Your task to perform on an android device: When is my next appointment? Image 0: 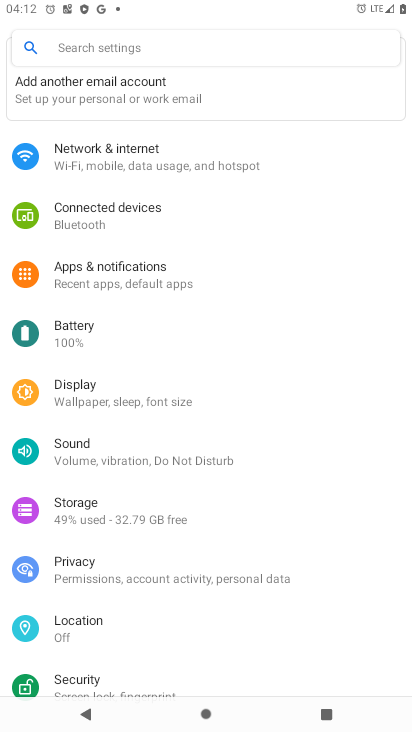
Step 0: press home button
Your task to perform on an android device: When is my next appointment? Image 1: 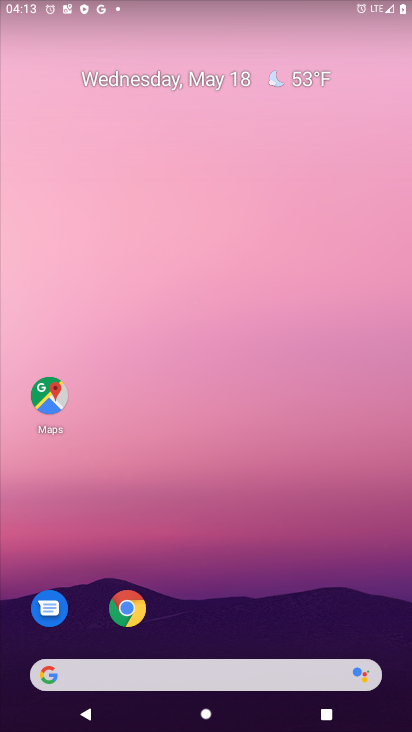
Step 1: drag from (253, 620) to (256, 0)
Your task to perform on an android device: When is my next appointment? Image 2: 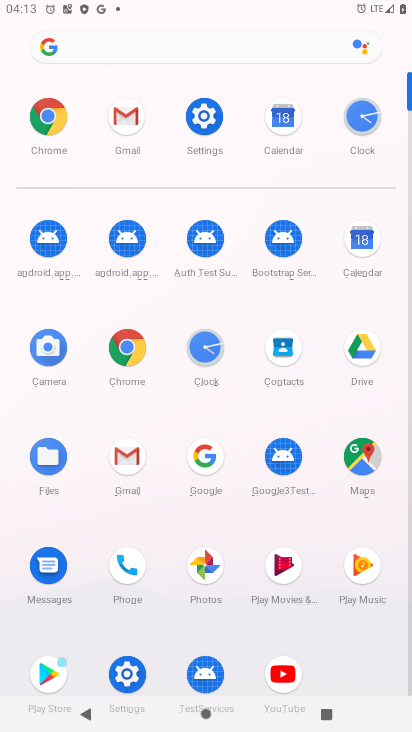
Step 2: click (281, 119)
Your task to perform on an android device: When is my next appointment? Image 3: 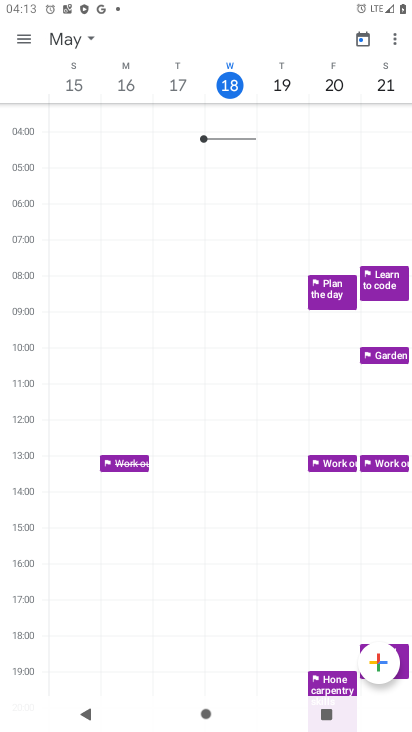
Step 3: click (24, 44)
Your task to perform on an android device: When is my next appointment? Image 4: 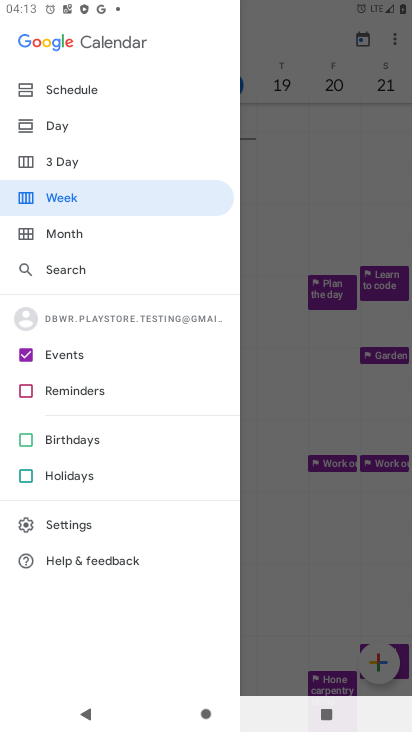
Step 4: click (80, 88)
Your task to perform on an android device: When is my next appointment? Image 5: 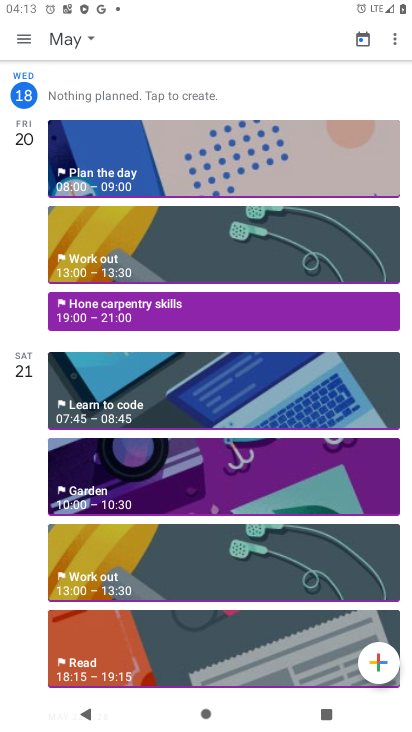
Step 5: click (130, 321)
Your task to perform on an android device: When is my next appointment? Image 6: 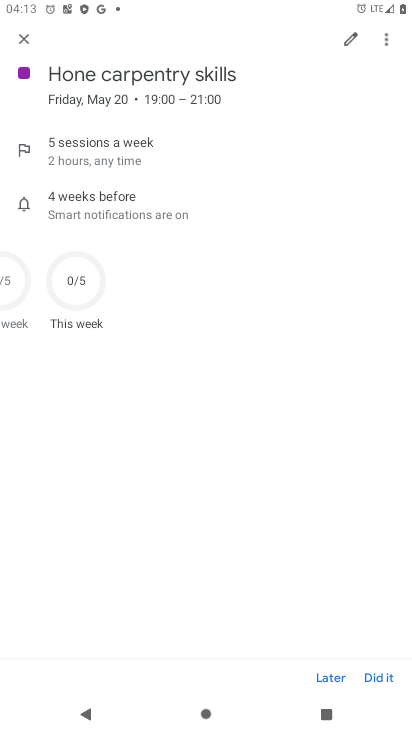
Step 6: task complete